Your task to perform on an android device: change alarm snooze length Image 0: 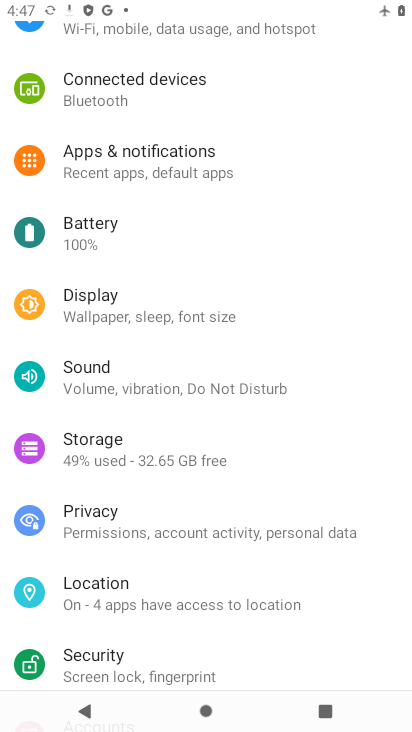
Step 0: drag from (186, 539) to (186, 245)
Your task to perform on an android device: change alarm snooze length Image 1: 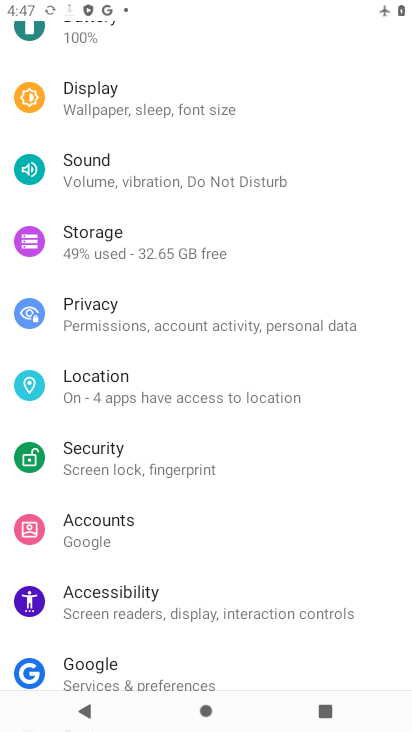
Step 1: drag from (184, 165) to (181, 511)
Your task to perform on an android device: change alarm snooze length Image 2: 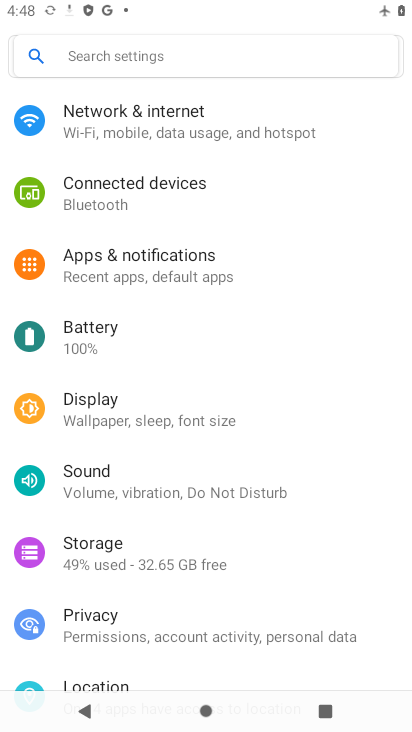
Step 2: press back button
Your task to perform on an android device: change alarm snooze length Image 3: 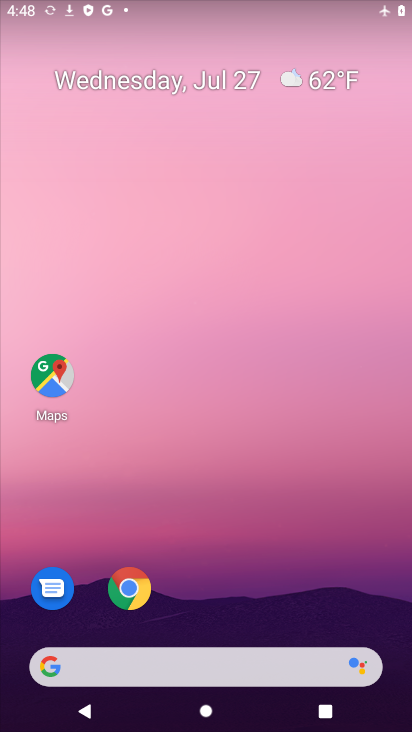
Step 3: drag from (187, 601) to (180, 126)
Your task to perform on an android device: change alarm snooze length Image 4: 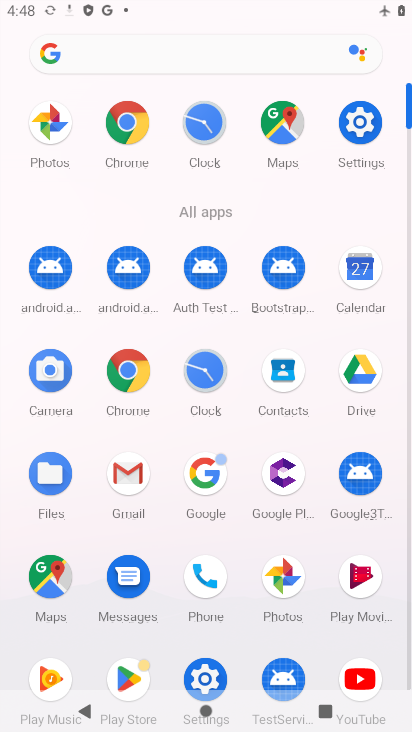
Step 4: click (203, 387)
Your task to perform on an android device: change alarm snooze length Image 5: 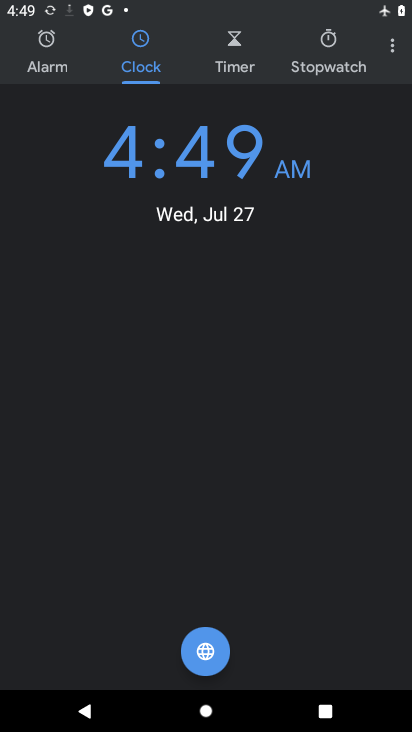
Step 5: click (391, 45)
Your task to perform on an android device: change alarm snooze length Image 6: 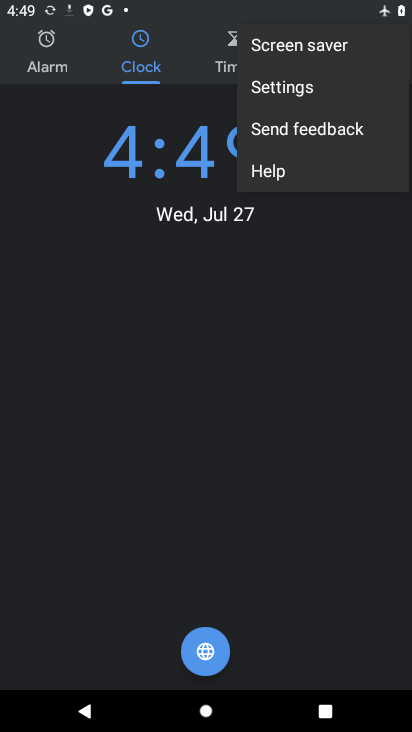
Step 6: click (299, 93)
Your task to perform on an android device: change alarm snooze length Image 7: 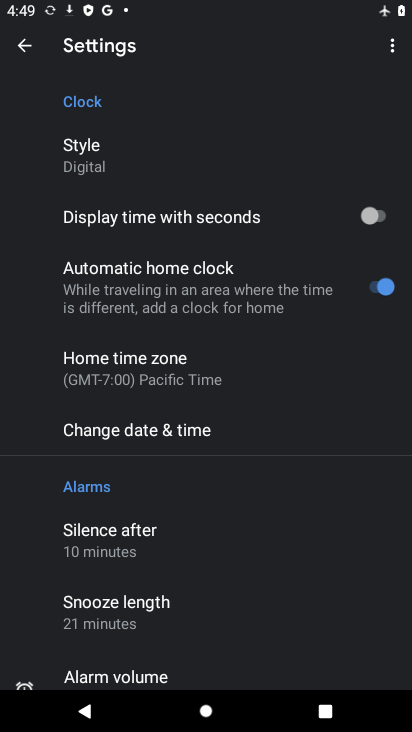
Step 7: click (105, 617)
Your task to perform on an android device: change alarm snooze length Image 8: 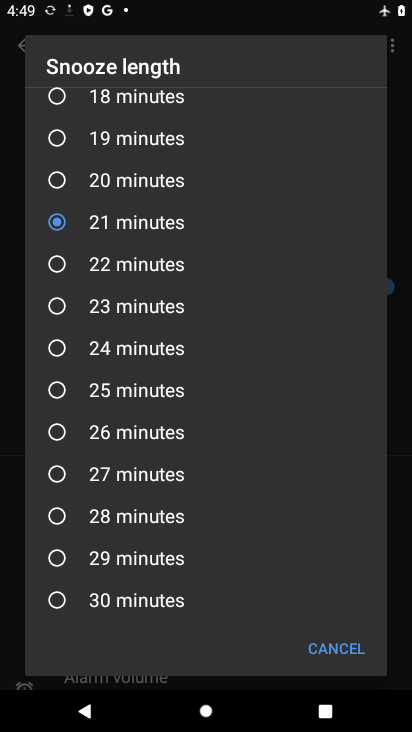
Step 8: click (53, 601)
Your task to perform on an android device: change alarm snooze length Image 9: 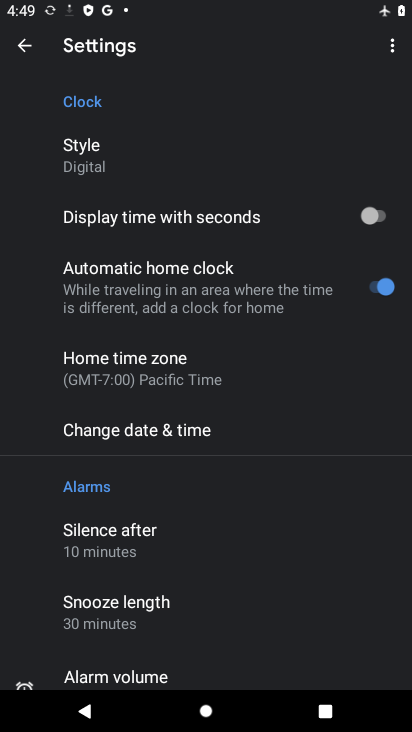
Step 9: task complete